Your task to perform on an android device: Search for apple airpods on bestbuy.com, select the first entry, and add it to the cart. Image 0: 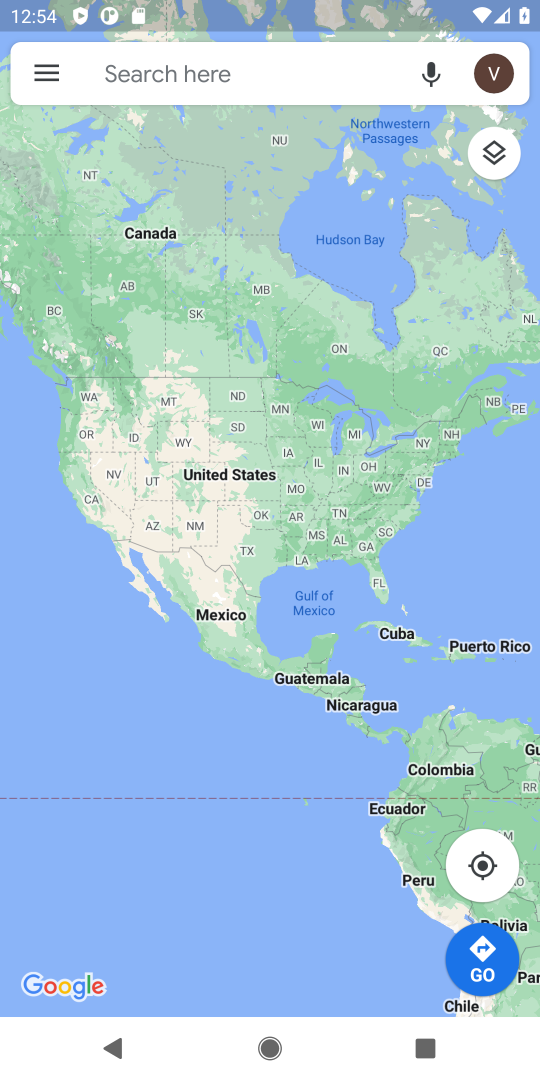
Step 0: press home button
Your task to perform on an android device: Search for apple airpods on bestbuy.com, select the first entry, and add it to the cart. Image 1: 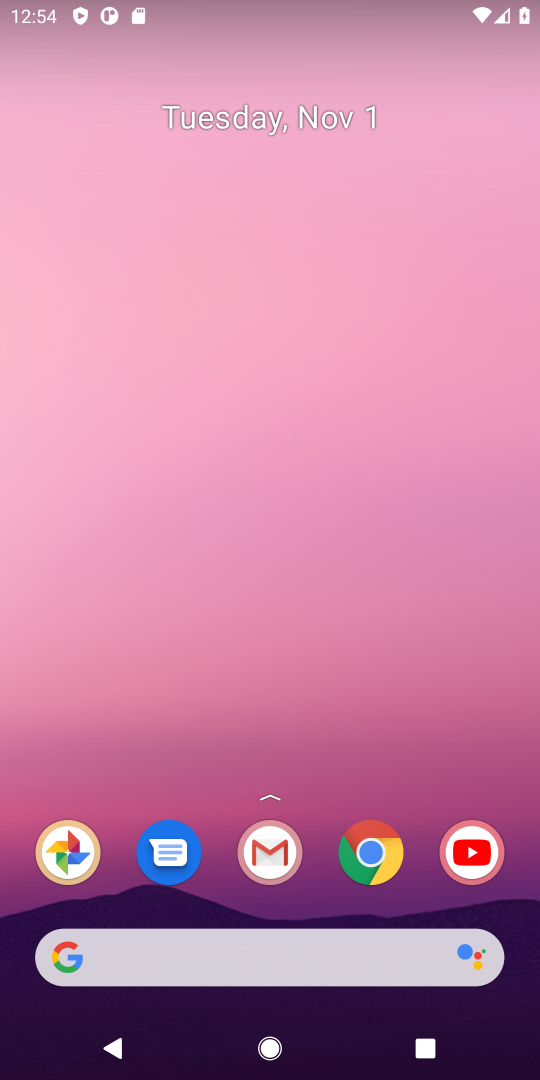
Step 1: click (364, 867)
Your task to perform on an android device: Search for apple airpods on bestbuy.com, select the first entry, and add it to the cart. Image 2: 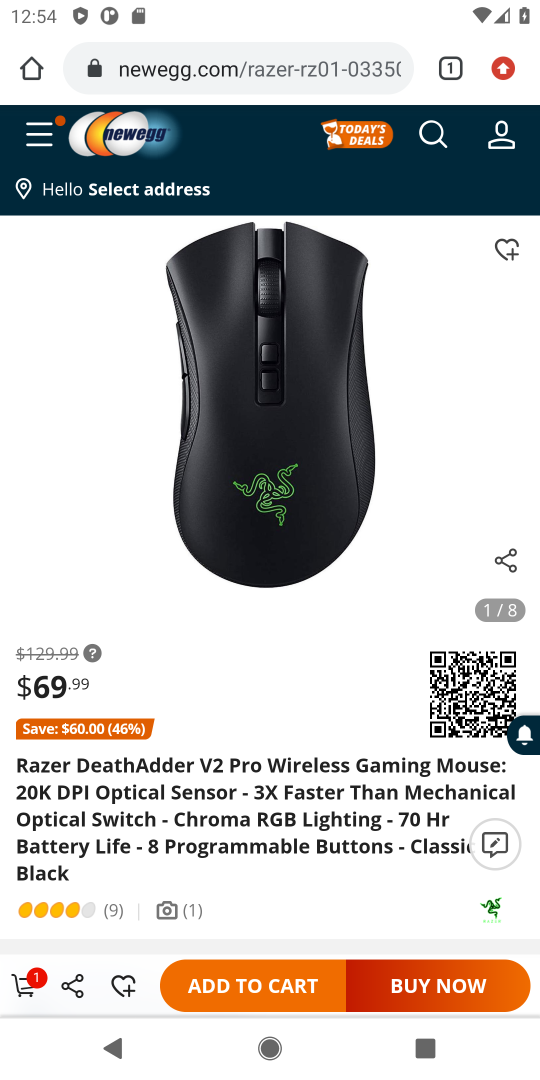
Step 2: click (265, 79)
Your task to perform on an android device: Search for apple airpods on bestbuy.com, select the first entry, and add it to the cart. Image 3: 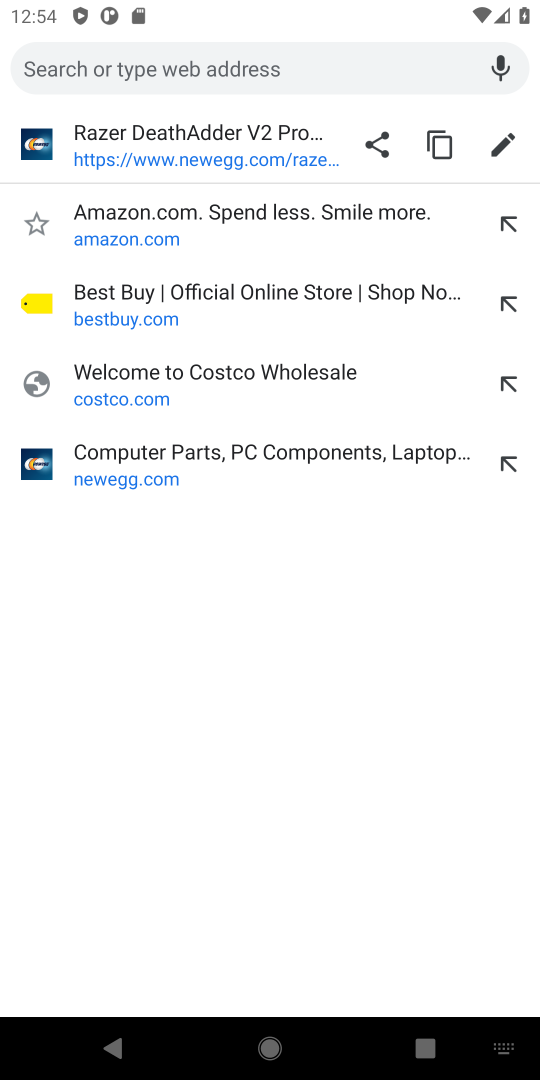
Step 3: type "bestbuy.com"
Your task to perform on an android device: Search for apple airpods on bestbuy.com, select the first entry, and add it to the cart. Image 4: 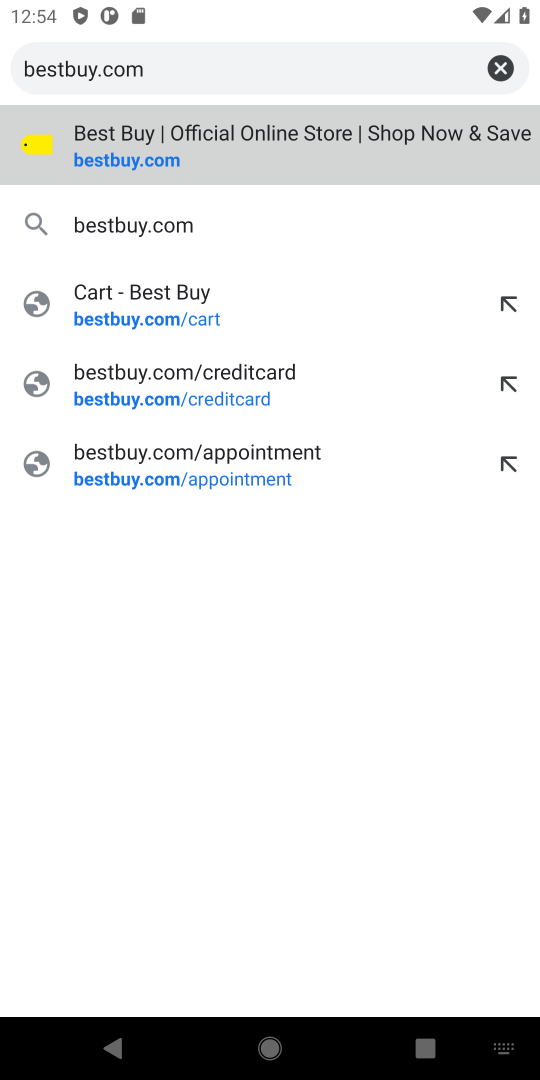
Step 4: type ""
Your task to perform on an android device: Search for apple airpods on bestbuy.com, select the first entry, and add it to the cart. Image 5: 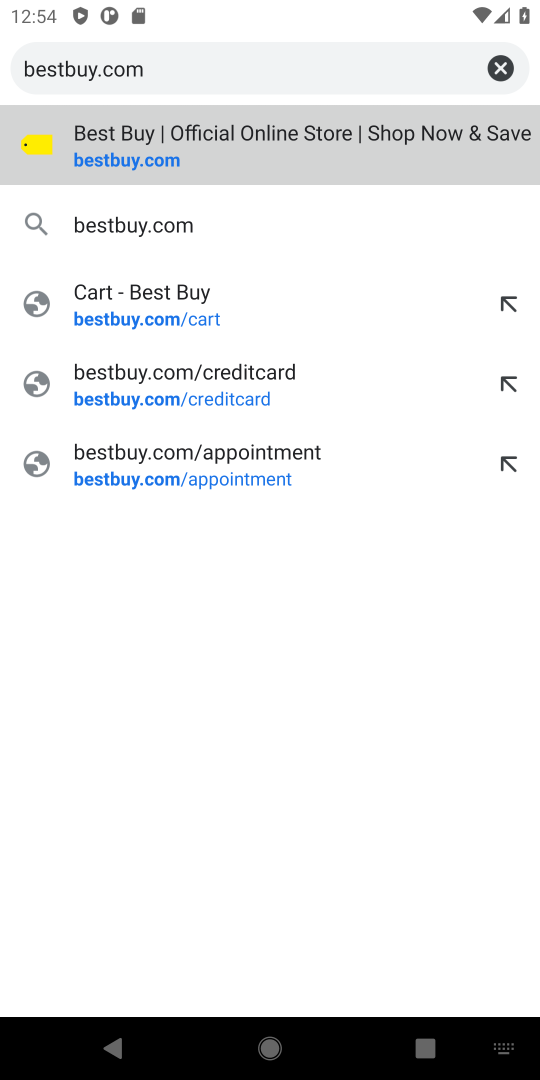
Step 5: press enter
Your task to perform on an android device: Search for apple airpods on bestbuy.com, select the first entry, and add it to the cart. Image 6: 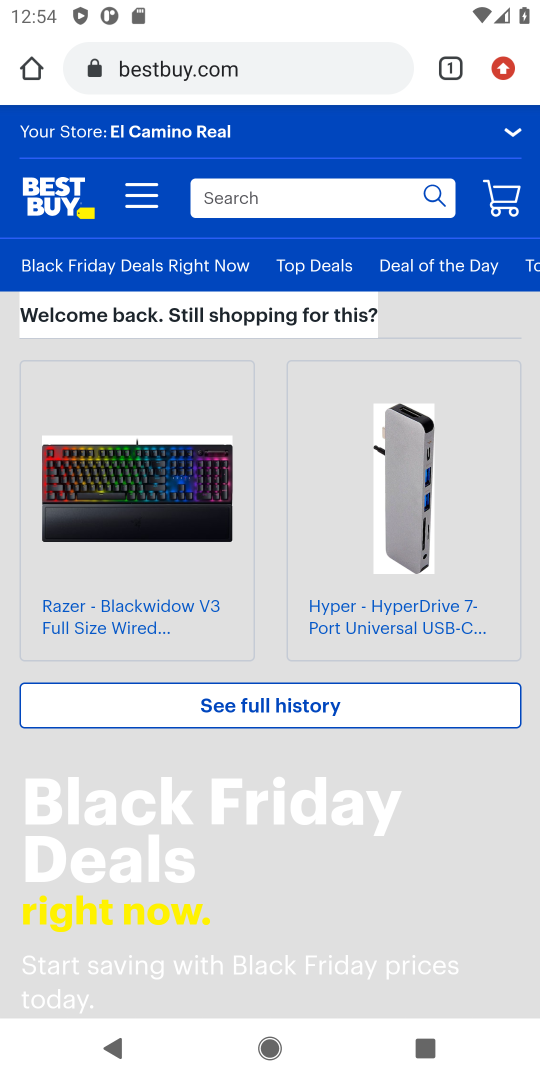
Step 6: click (345, 198)
Your task to perform on an android device: Search for apple airpods on bestbuy.com, select the first entry, and add it to the cart. Image 7: 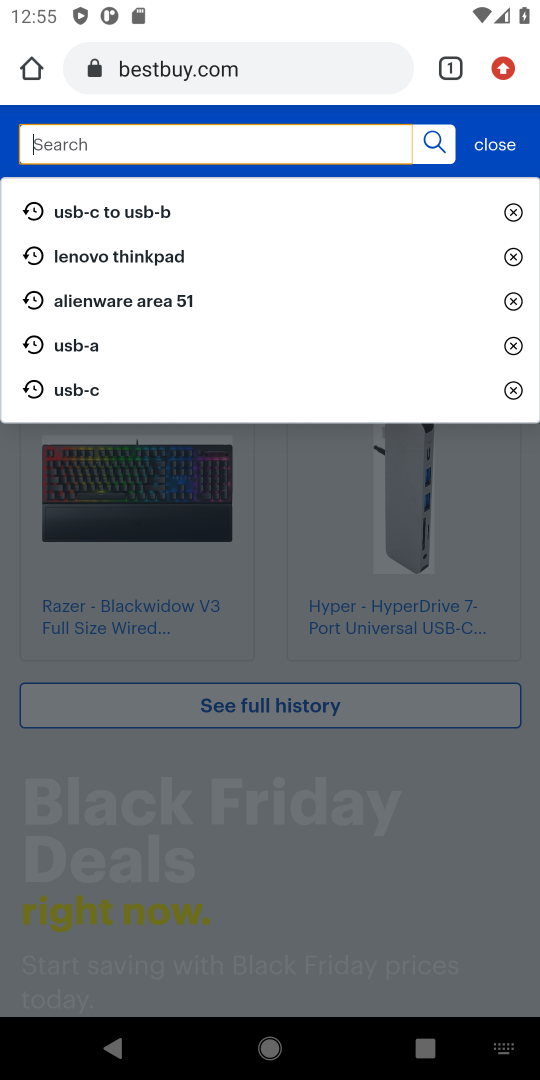
Step 7: type "apple airpods"
Your task to perform on an android device: Search for apple airpods on bestbuy.com, select the first entry, and add it to the cart. Image 8: 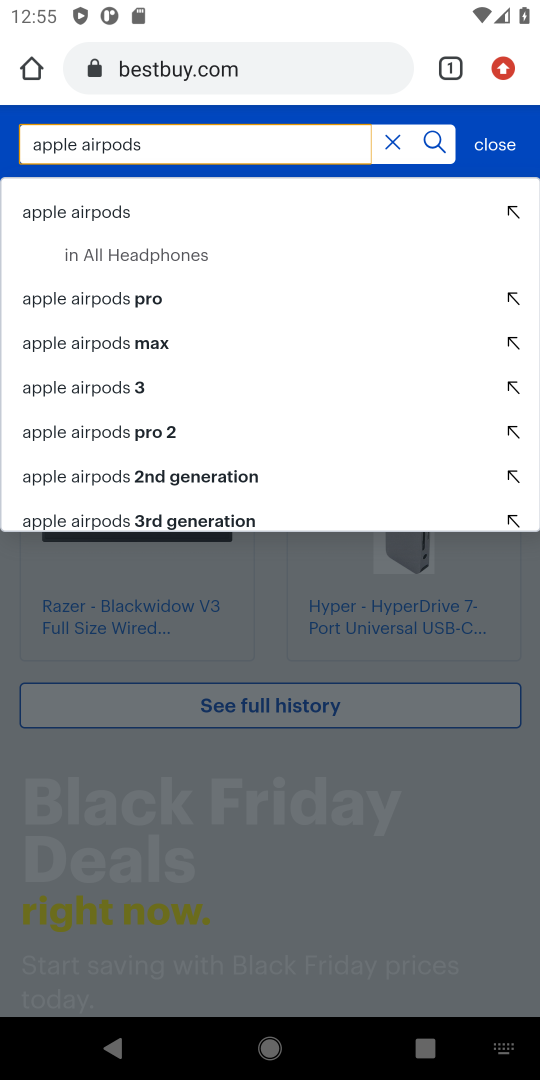
Step 8: press enter
Your task to perform on an android device: Search for apple airpods on bestbuy.com, select the first entry, and add it to the cart. Image 9: 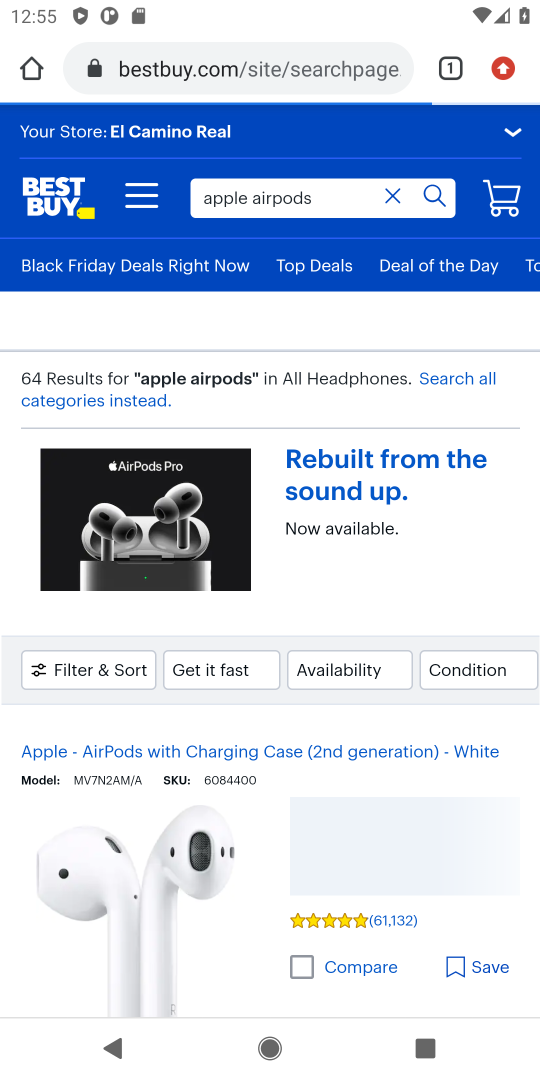
Step 9: click (378, 769)
Your task to perform on an android device: Search for apple airpods on bestbuy.com, select the first entry, and add it to the cart. Image 10: 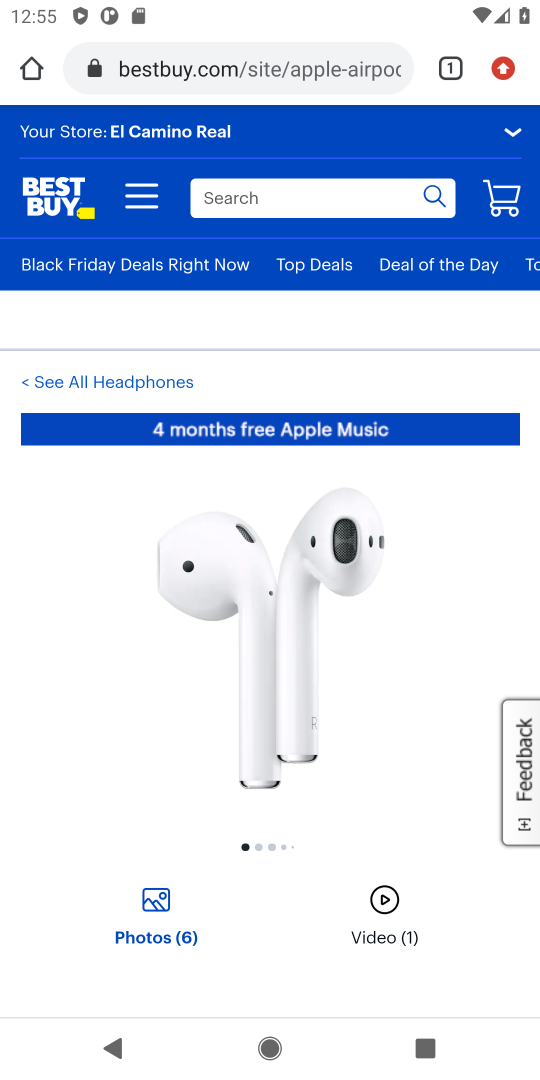
Step 10: drag from (417, 939) to (351, 243)
Your task to perform on an android device: Search for apple airpods on bestbuy.com, select the first entry, and add it to the cart. Image 11: 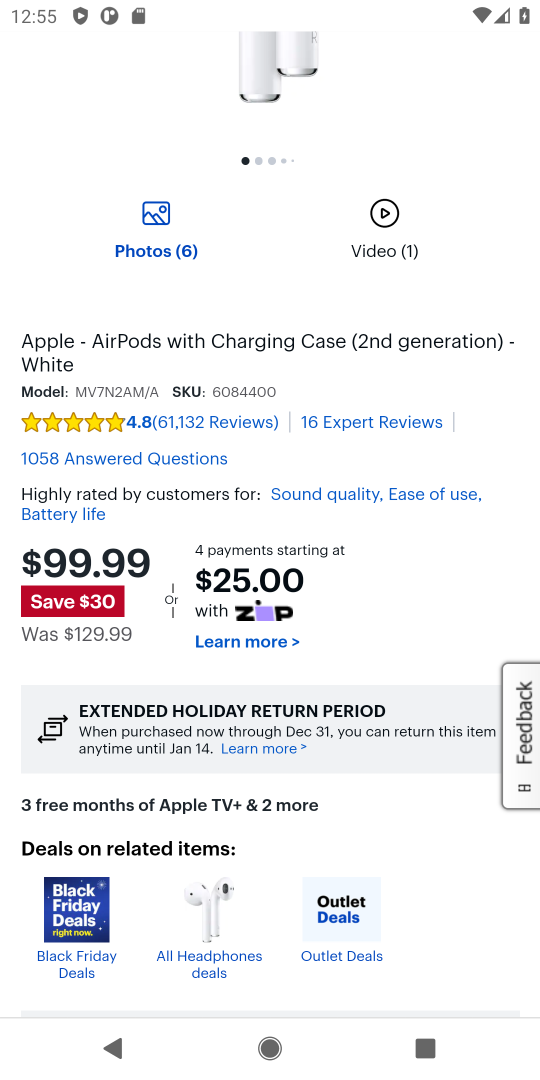
Step 11: drag from (326, 932) to (265, 274)
Your task to perform on an android device: Search for apple airpods on bestbuy.com, select the first entry, and add it to the cart. Image 12: 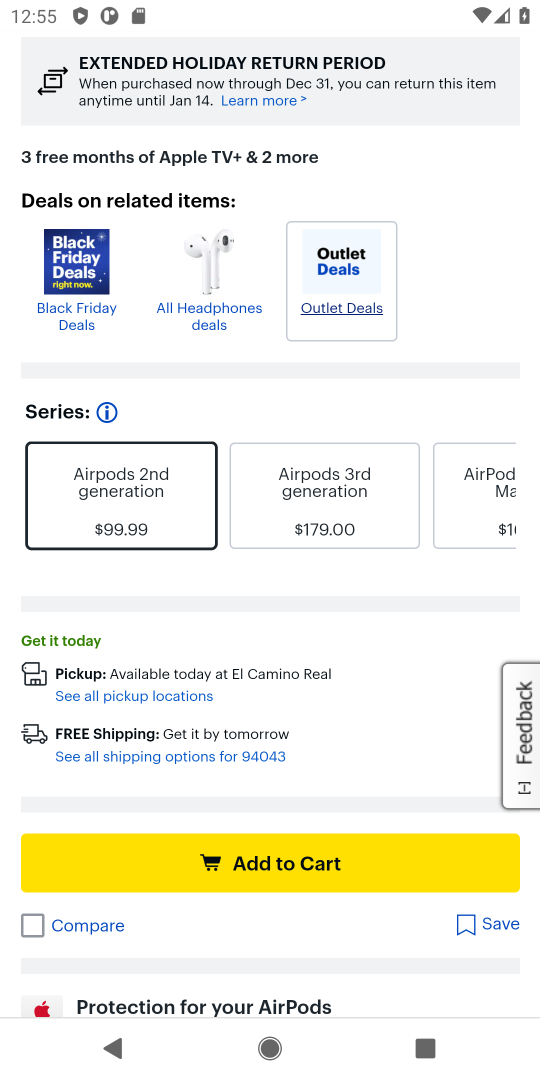
Step 12: click (257, 864)
Your task to perform on an android device: Search for apple airpods on bestbuy.com, select the first entry, and add it to the cart. Image 13: 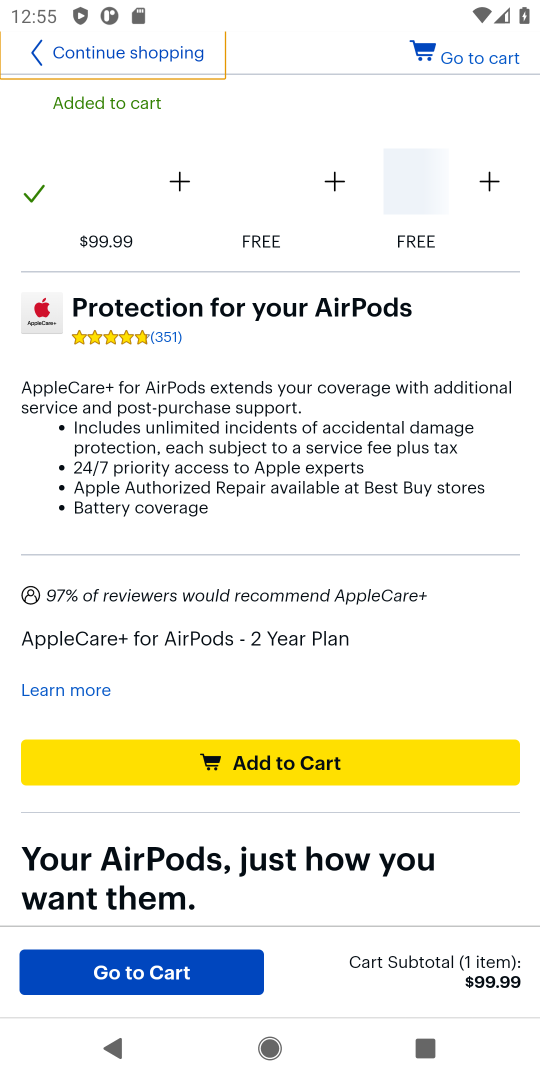
Step 13: click (156, 970)
Your task to perform on an android device: Search for apple airpods on bestbuy.com, select the first entry, and add it to the cart. Image 14: 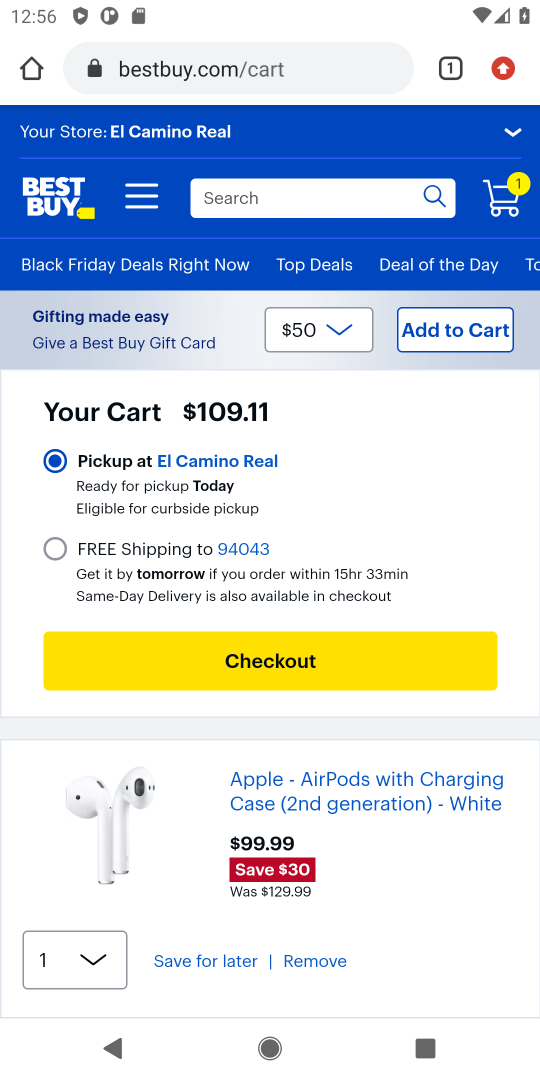
Step 14: task complete